Your task to perform on an android device: check android version Image 0: 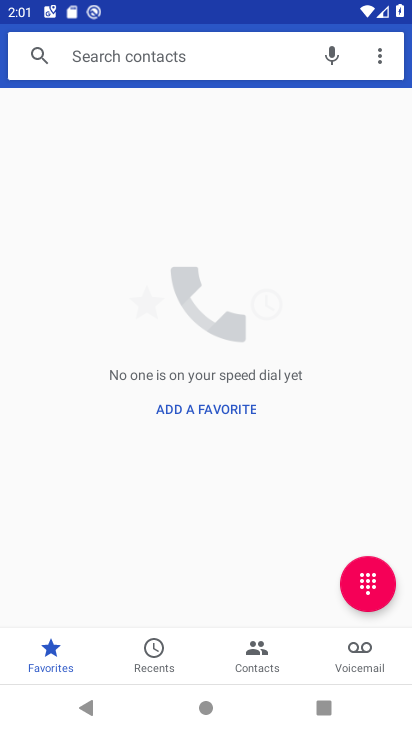
Step 0: press home button
Your task to perform on an android device: check android version Image 1: 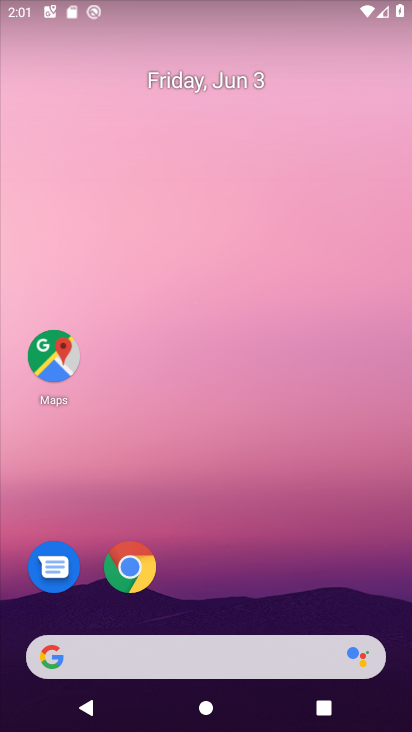
Step 1: drag from (160, 665) to (243, 297)
Your task to perform on an android device: check android version Image 2: 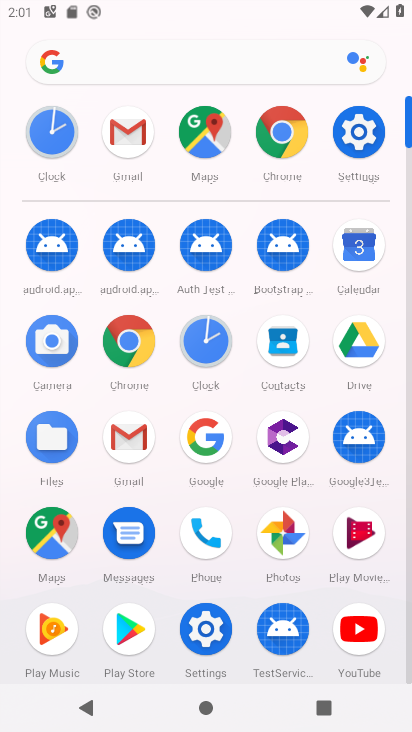
Step 2: click (351, 131)
Your task to perform on an android device: check android version Image 3: 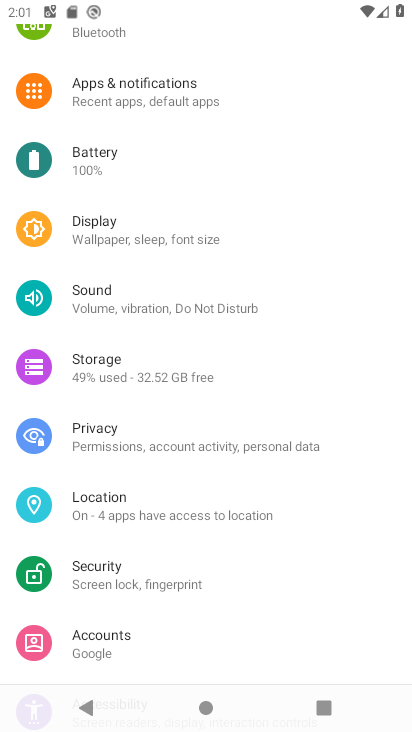
Step 3: drag from (169, 647) to (234, 233)
Your task to perform on an android device: check android version Image 4: 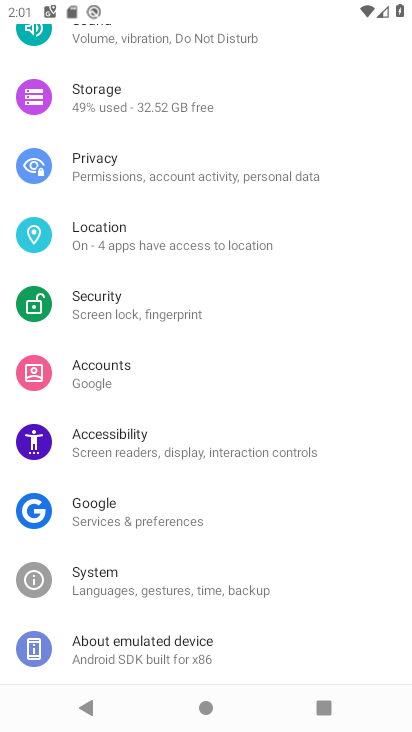
Step 4: click (218, 647)
Your task to perform on an android device: check android version Image 5: 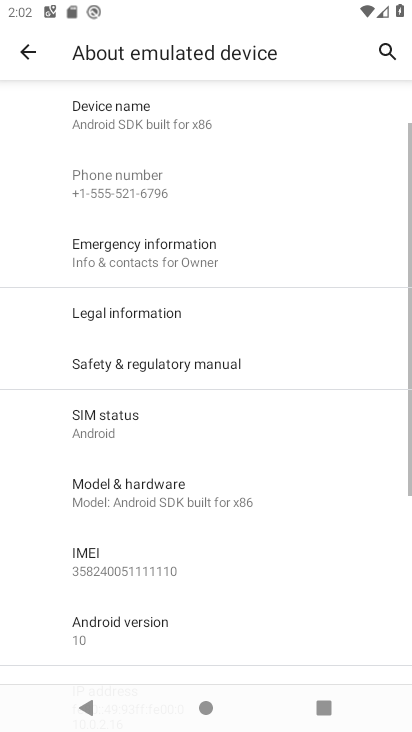
Step 5: task complete